Your task to perform on an android device: Toggle the flashlight Image 0: 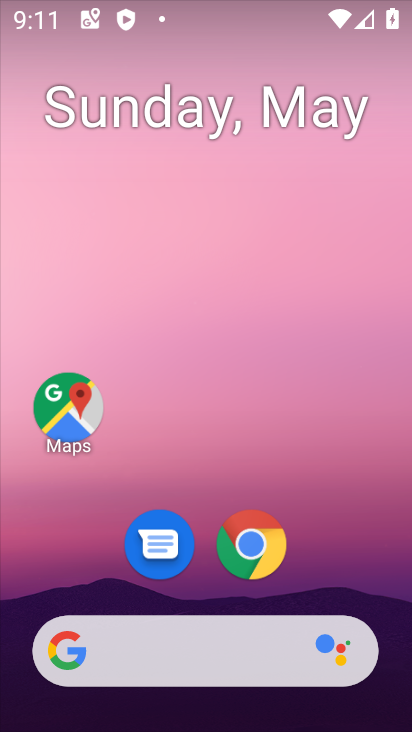
Step 0: drag from (369, 496) to (408, 90)
Your task to perform on an android device: Toggle the flashlight Image 1: 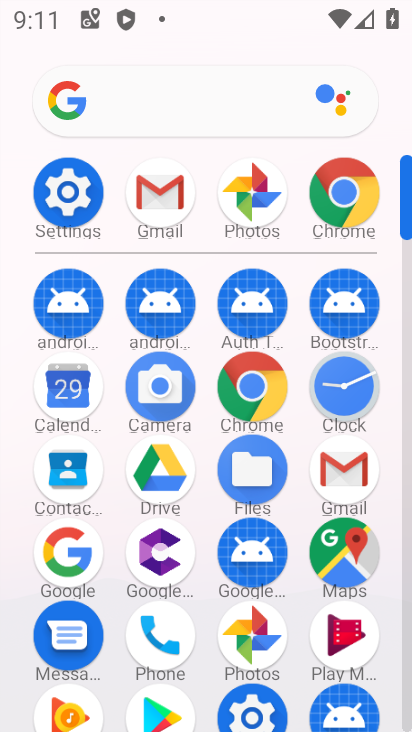
Step 1: click (76, 195)
Your task to perform on an android device: Toggle the flashlight Image 2: 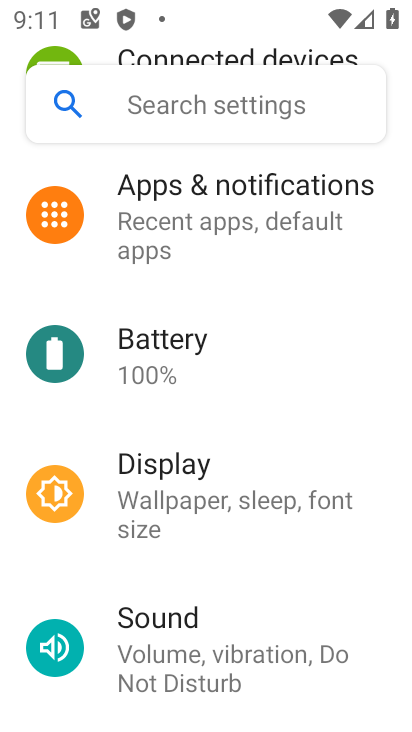
Step 2: task complete